Your task to perform on an android device: Open the phone app and click the voicemail tab. Image 0: 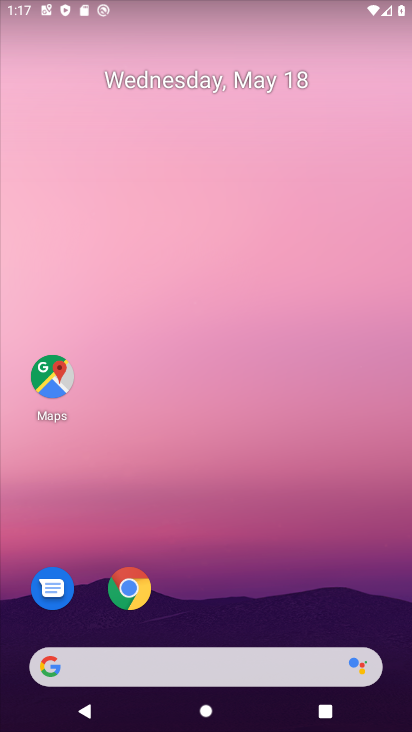
Step 0: drag from (349, 589) to (329, 109)
Your task to perform on an android device: Open the phone app and click the voicemail tab. Image 1: 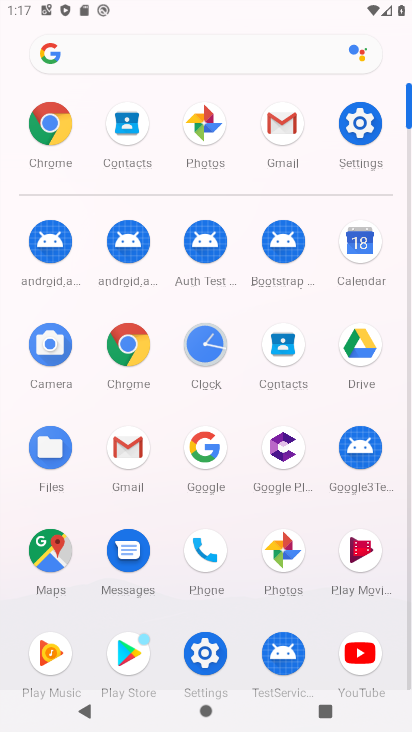
Step 1: click (356, 577)
Your task to perform on an android device: Open the phone app and click the voicemail tab. Image 2: 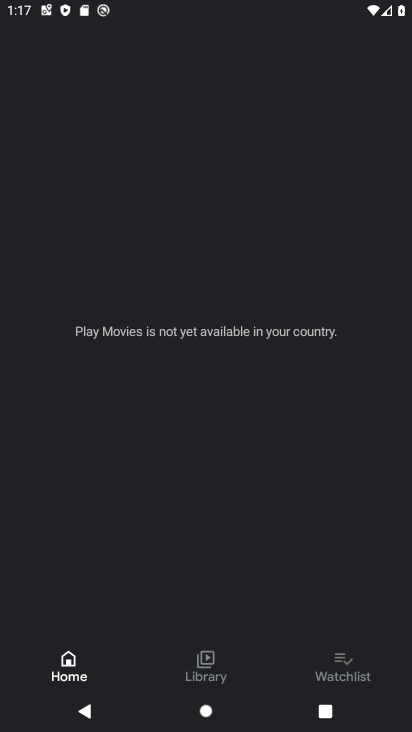
Step 2: click (336, 663)
Your task to perform on an android device: Open the phone app and click the voicemail tab. Image 3: 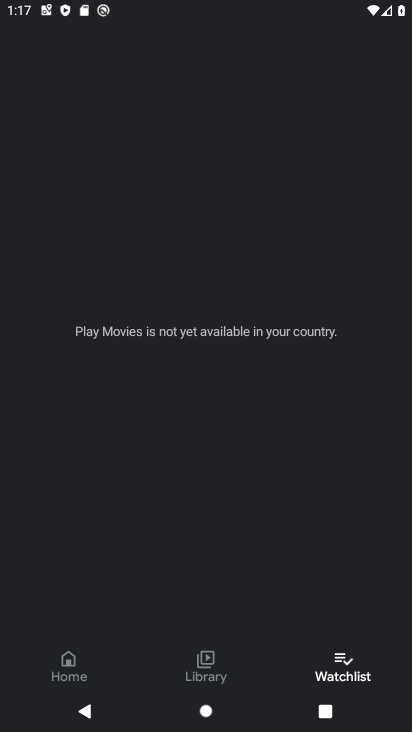
Step 3: task complete